Your task to perform on an android device: Open network settings Image 0: 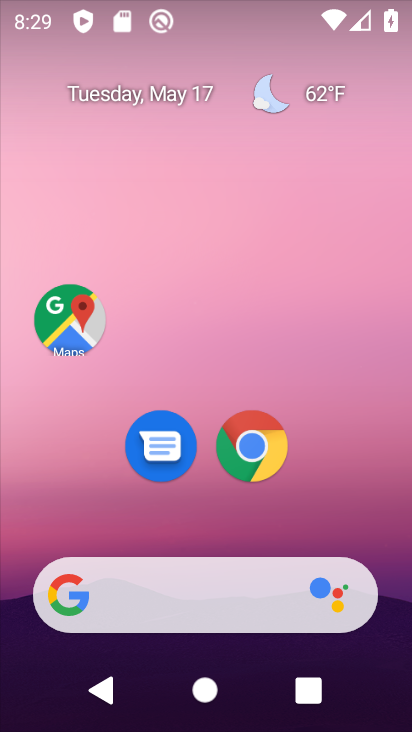
Step 0: drag from (111, 551) to (310, 95)
Your task to perform on an android device: Open network settings Image 1: 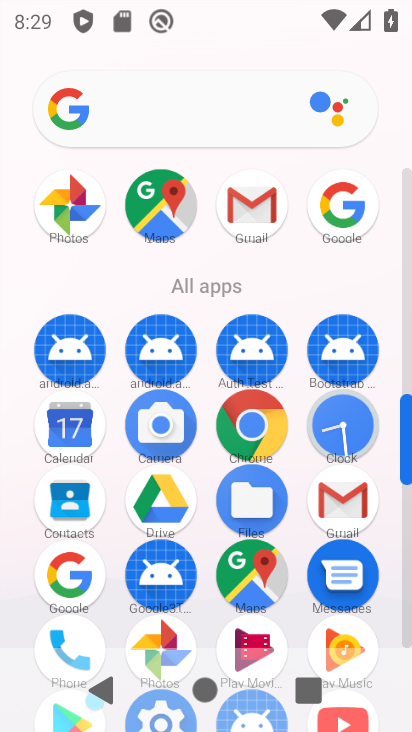
Step 1: drag from (136, 661) to (244, 421)
Your task to perform on an android device: Open network settings Image 2: 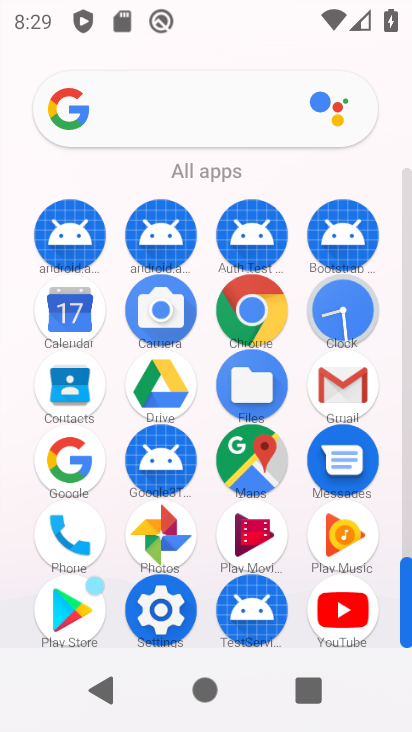
Step 2: click (168, 620)
Your task to perform on an android device: Open network settings Image 3: 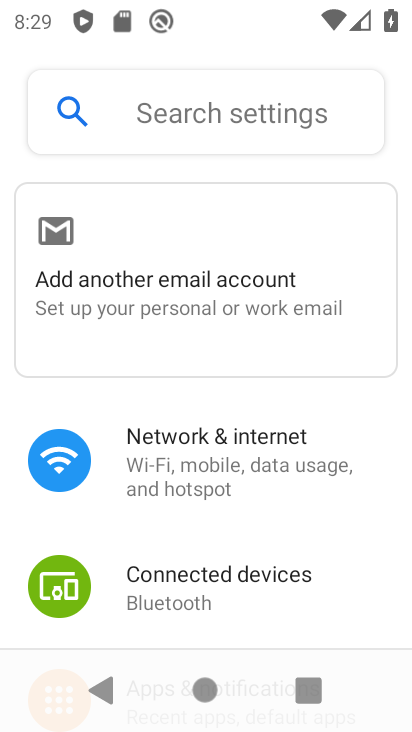
Step 3: click (274, 469)
Your task to perform on an android device: Open network settings Image 4: 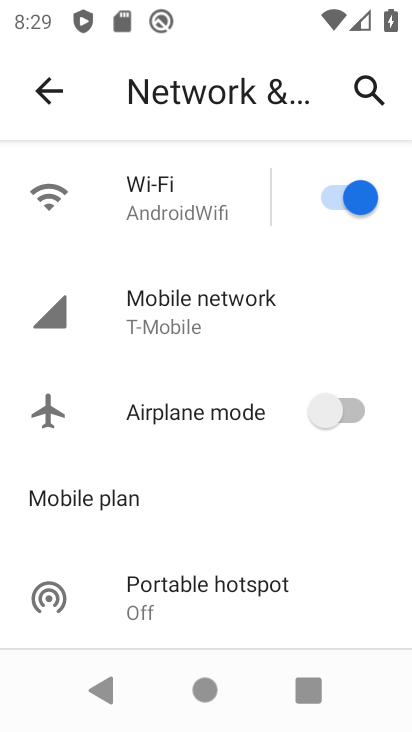
Step 4: click (287, 295)
Your task to perform on an android device: Open network settings Image 5: 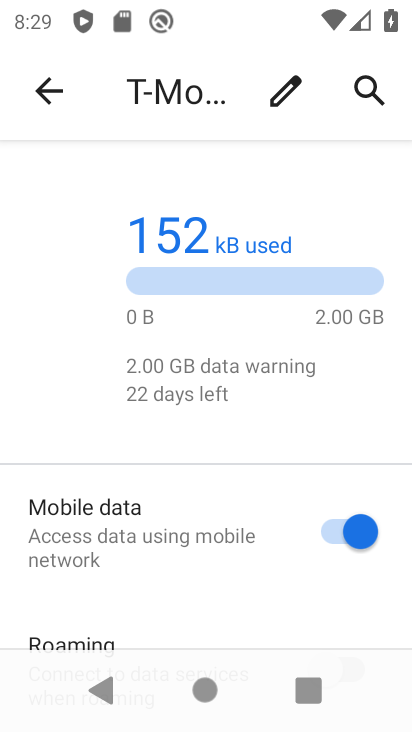
Step 5: task complete